Your task to perform on an android device: turn pop-ups off in chrome Image 0: 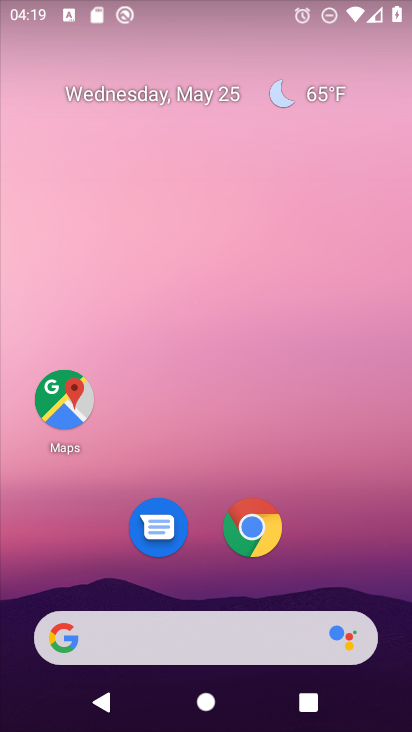
Step 0: drag from (314, 486) to (384, 122)
Your task to perform on an android device: turn pop-ups off in chrome Image 1: 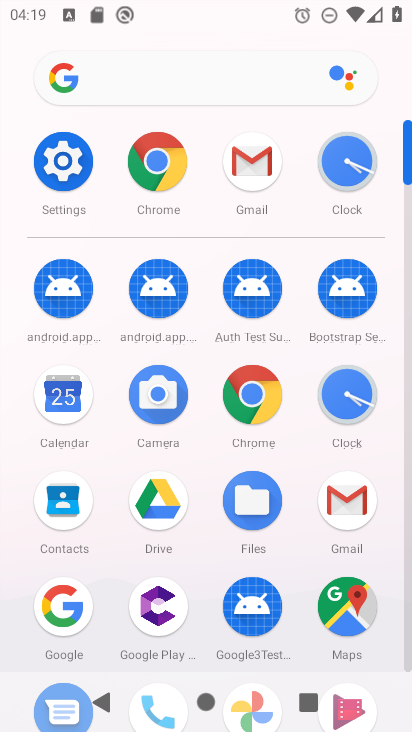
Step 1: click (252, 403)
Your task to perform on an android device: turn pop-ups off in chrome Image 2: 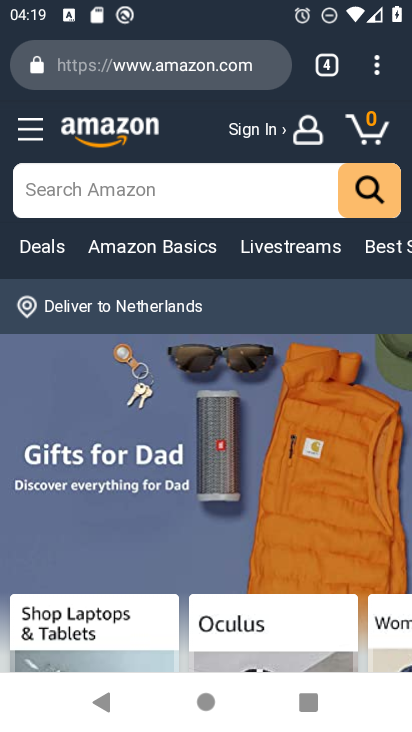
Step 2: drag from (369, 72) to (188, 574)
Your task to perform on an android device: turn pop-ups off in chrome Image 3: 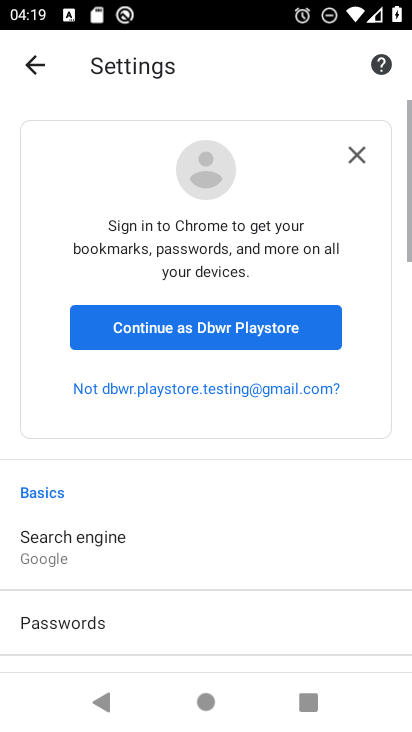
Step 3: drag from (195, 616) to (221, 116)
Your task to perform on an android device: turn pop-ups off in chrome Image 4: 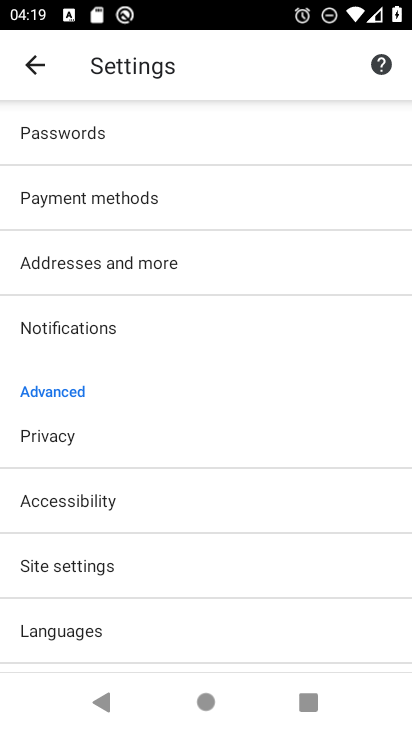
Step 4: click (106, 552)
Your task to perform on an android device: turn pop-ups off in chrome Image 5: 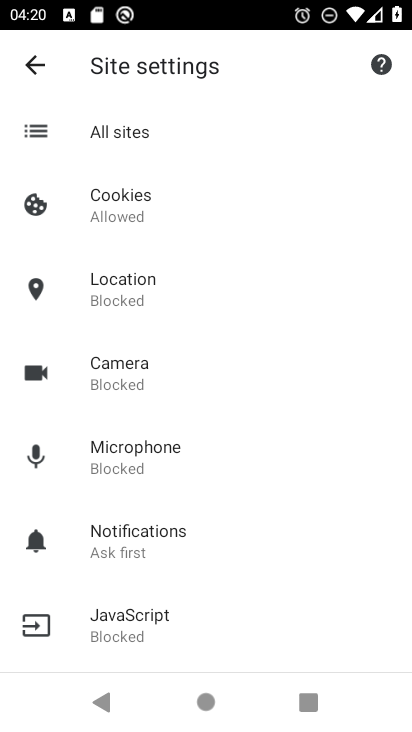
Step 5: drag from (179, 611) to (127, 184)
Your task to perform on an android device: turn pop-ups off in chrome Image 6: 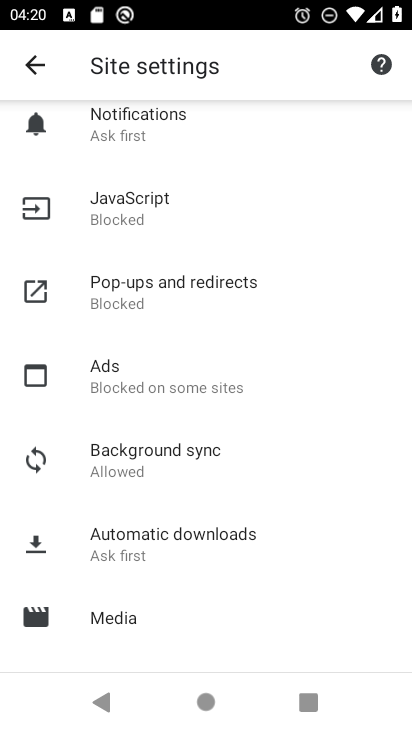
Step 6: click (180, 294)
Your task to perform on an android device: turn pop-ups off in chrome Image 7: 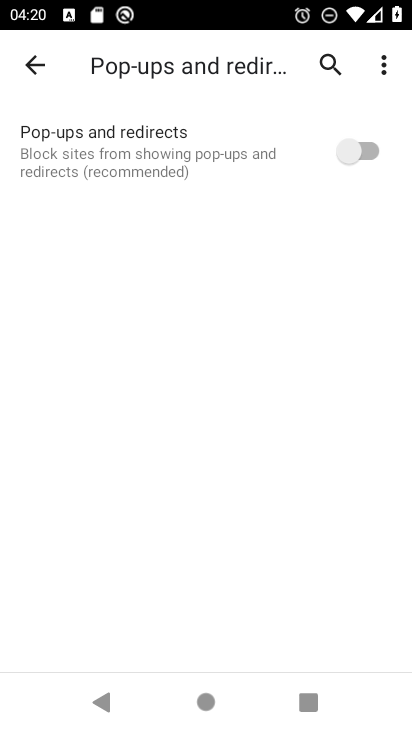
Step 7: task complete